Your task to perform on an android device: Open internet settings Image 0: 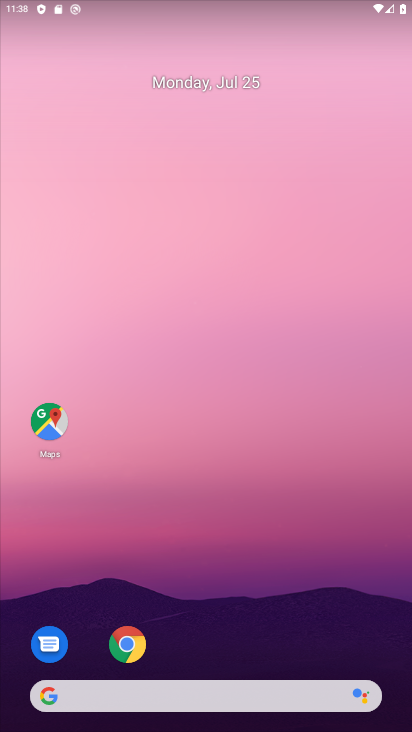
Step 0: click (339, 22)
Your task to perform on an android device: Open internet settings Image 1: 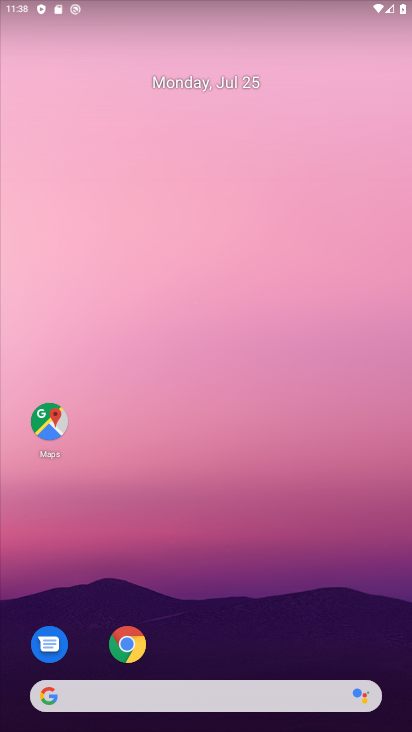
Step 1: drag from (291, 643) to (335, 0)
Your task to perform on an android device: Open internet settings Image 2: 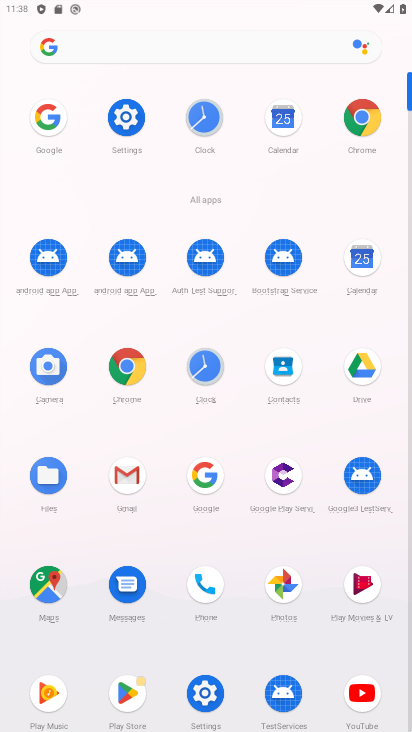
Step 2: click (125, 118)
Your task to perform on an android device: Open internet settings Image 3: 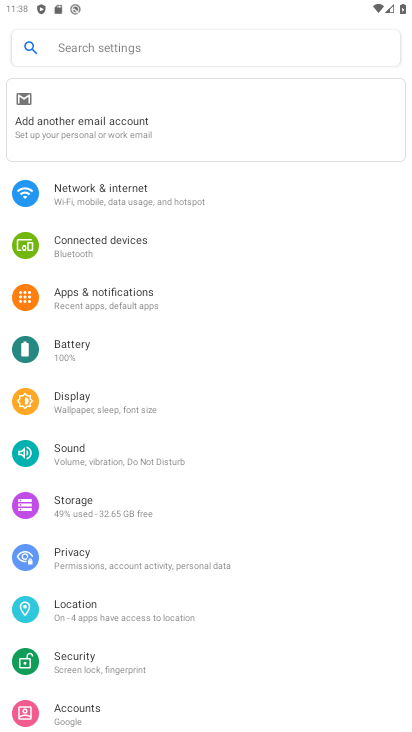
Step 3: click (129, 199)
Your task to perform on an android device: Open internet settings Image 4: 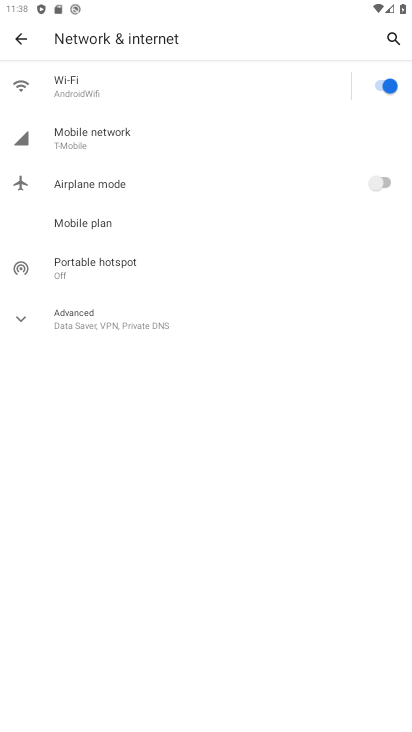
Step 4: task complete